Your task to perform on an android device: Go to eBay Image 0: 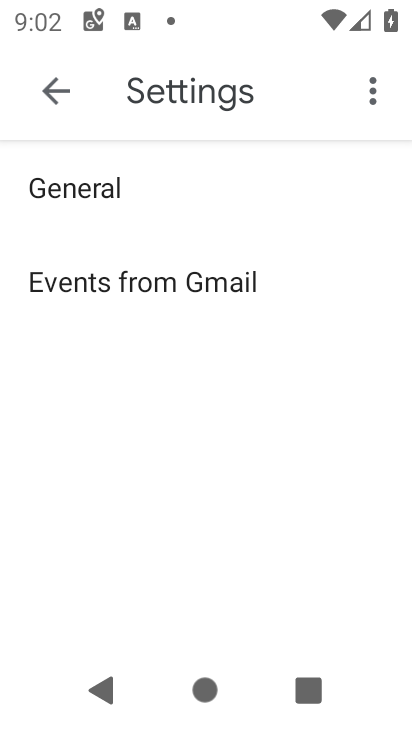
Step 0: press home button
Your task to perform on an android device: Go to eBay Image 1: 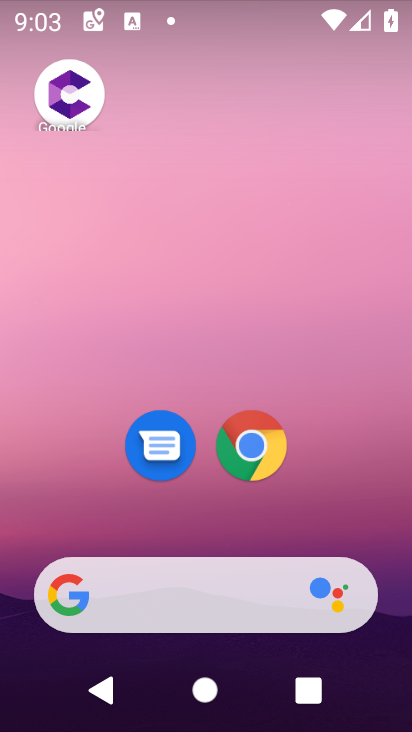
Step 1: drag from (337, 504) to (329, 28)
Your task to perform on an android device: Go to eBay Image 2: 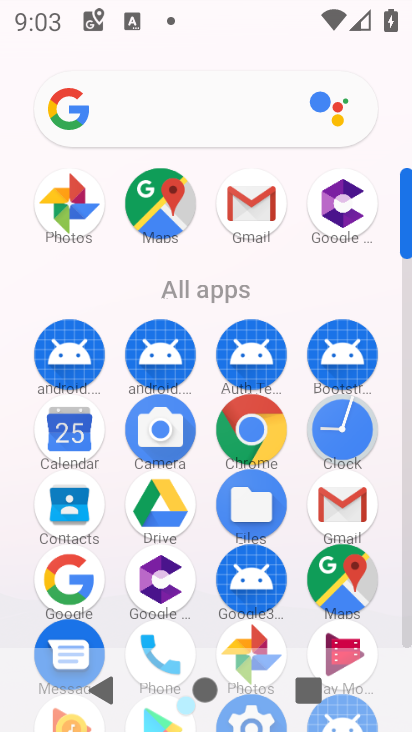
Step 2: click (248, 438)
Your task to perform on an android device: Go to eBay Image 3: 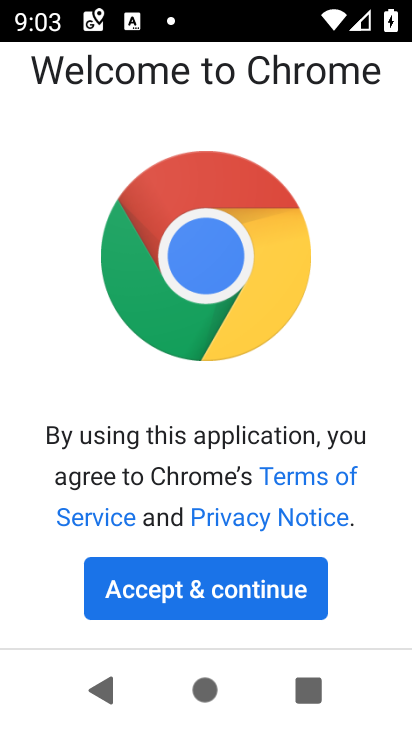
Step 3: click (281, 607)
Your task to perform on an android device: Go to eBay Image 4: 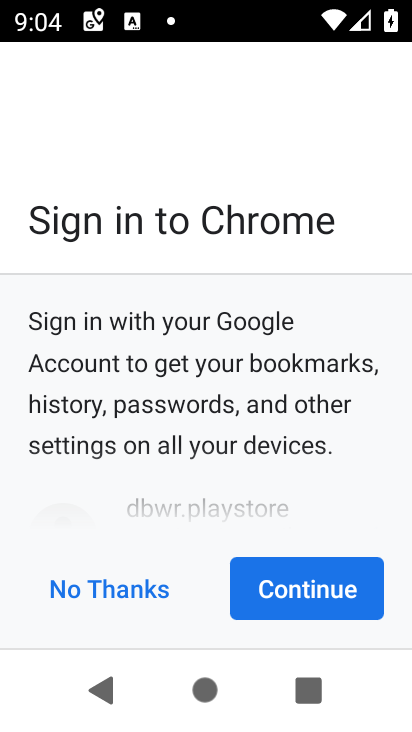
Step 4: click (136, 584)
Your task to perform on an android device: Go to eBay Image 5: 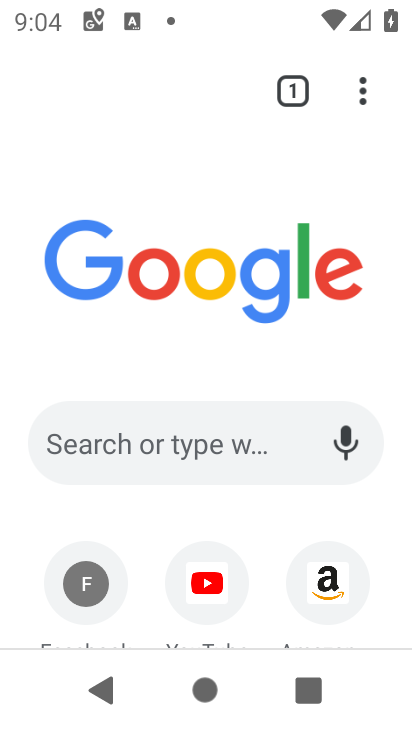
Step 5: drag from (256, 552) to (255, 245)
Your task to perform on an android device: Go to eBay Image 6: 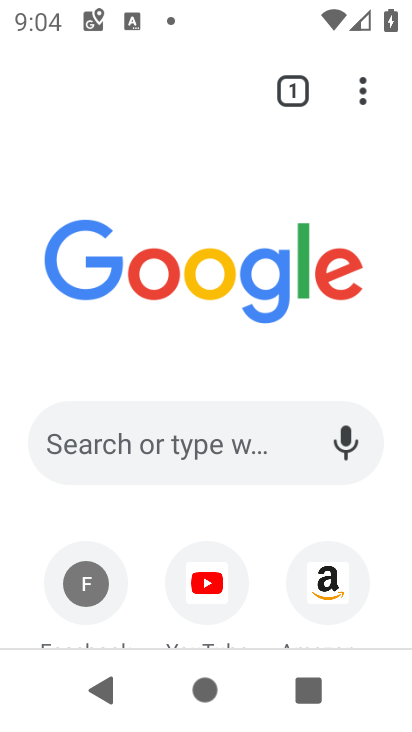
Step 6: drag from (261, 588) to (252, 230)
Your task to perform on an android device: Go to eBay Image 7: 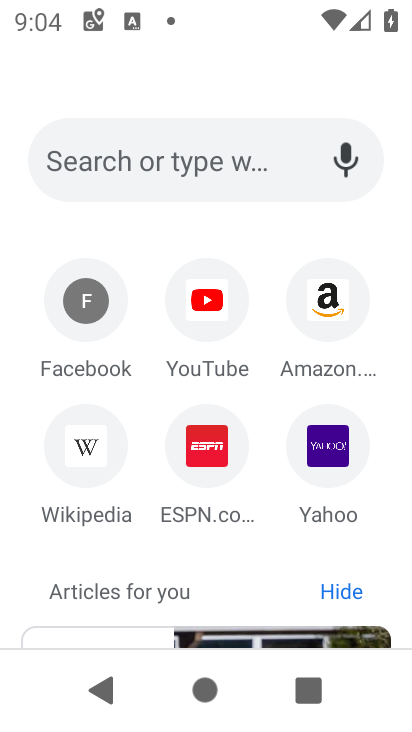
Step 7: click (166, 185)
Your task to perform on an android device: Go to eBay Image 8: 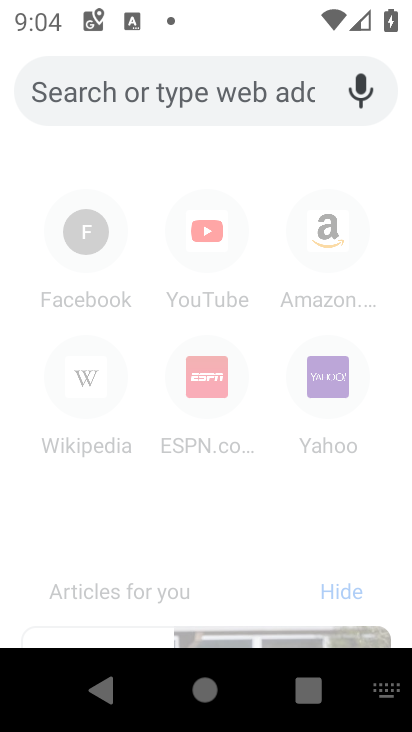
Step 8: type "ebat"
Your task to perform on an android device: Go to eBay Image 9: 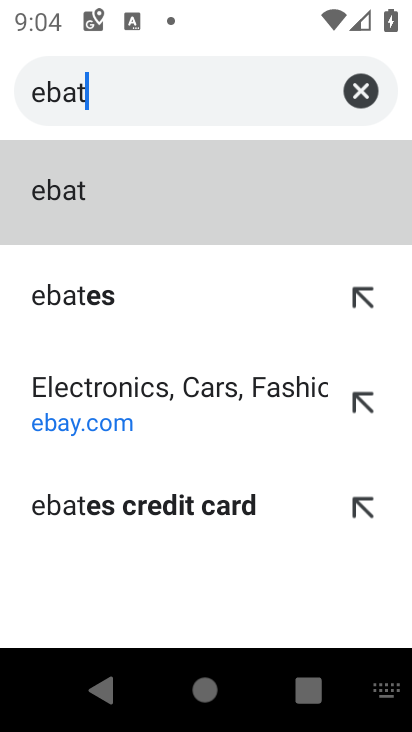
Step 9: click (373, 91)
Your task to perform on an android device: Go to eBay Image 10: 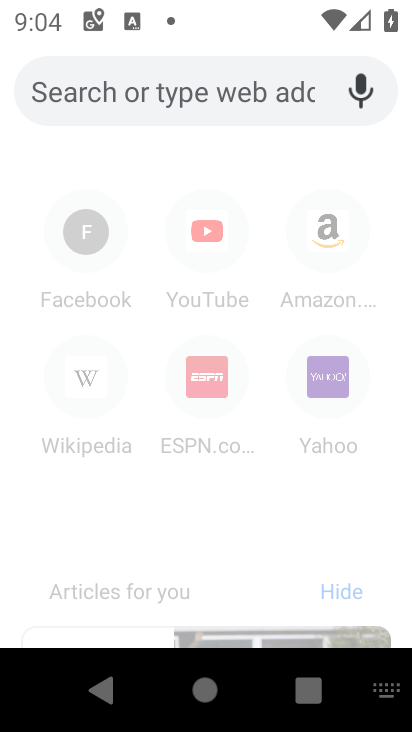
Step 10: type "ebay"
Your task to perform on an android device: Go to eBay Image 11: 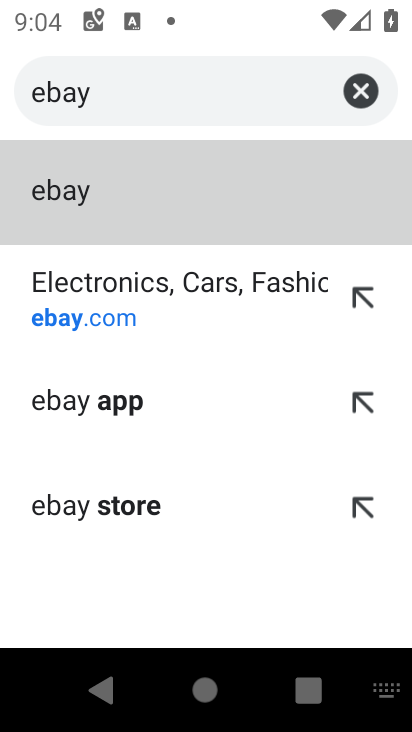
Step 11: click (92, 273)
Your task to perform on an android device: Go to eBay Image 12: 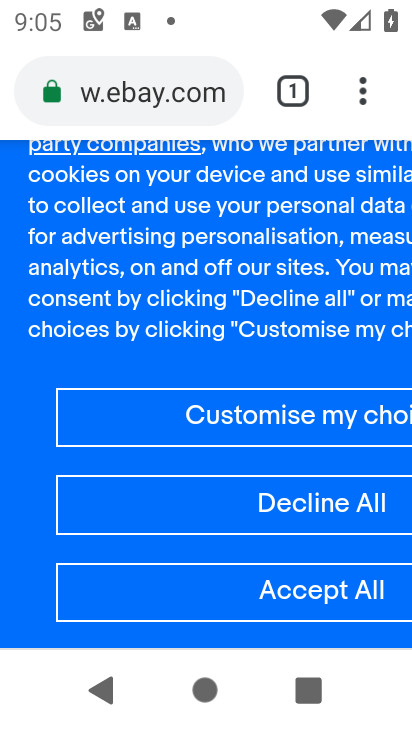
Step 12: task complete